Your task to perform on an android device: Search for Mexican restaurants on Maps Image 0: 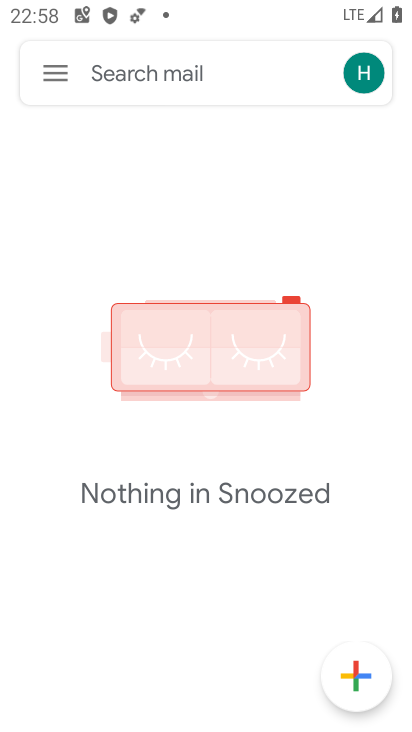
Step 0: press home button
Your task to perform on an android device: Search for Mexican restaurants on Maps Image 1: 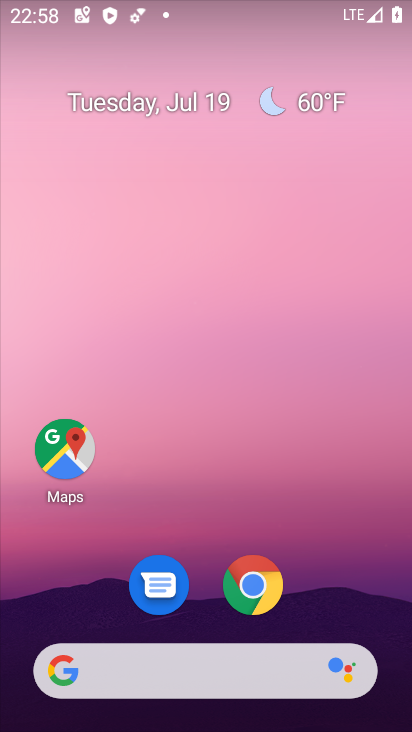
Step 1: click (64, 441)
Your task to perform on an android device: Search for Mexican restaurants on Maps Image 2: 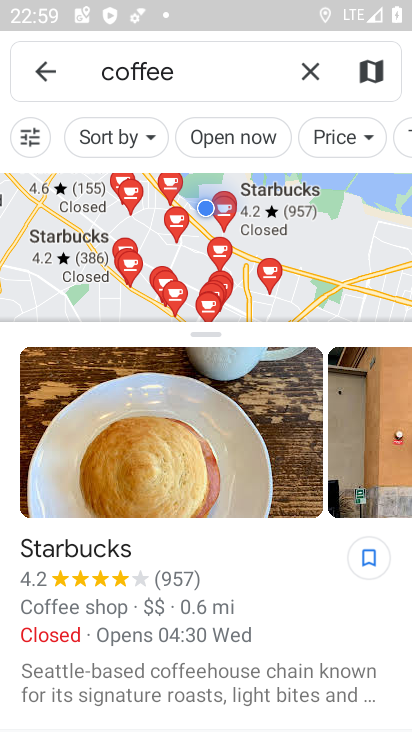
Step 2: click (307, 64)
Your task to perform on an android device: Search for Mexican restaurants on Maps Image 3: 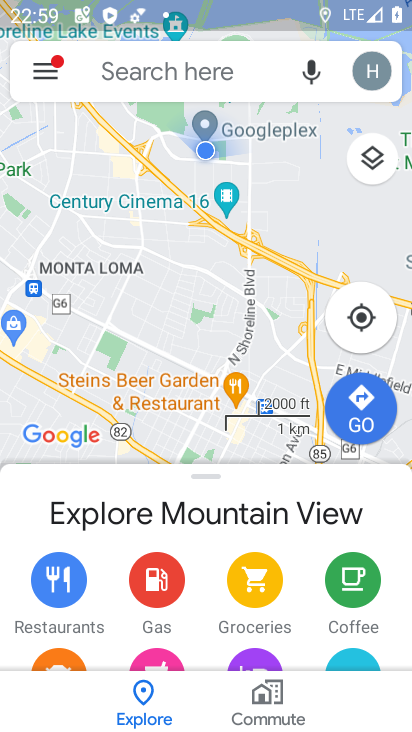
Step 3: click (268, 64)
Your task to perform on an android device: Search for Mexican restaurants on Maps Image 4: 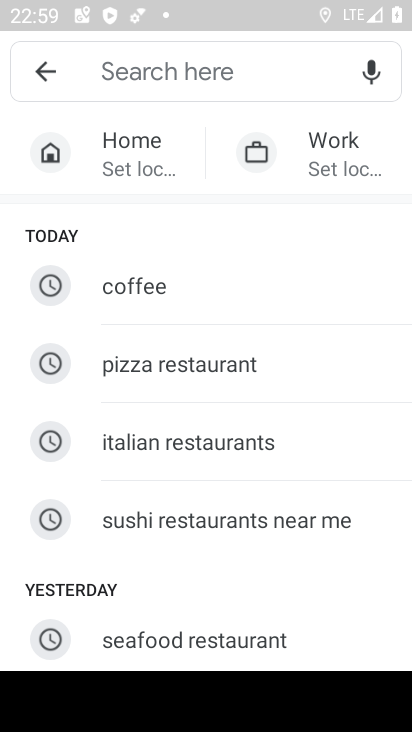
Step 4: drag from (212, 486) to (222, 230)
Your task to perform on an android device: Search for Mexican restaurants on Maps Image 5: 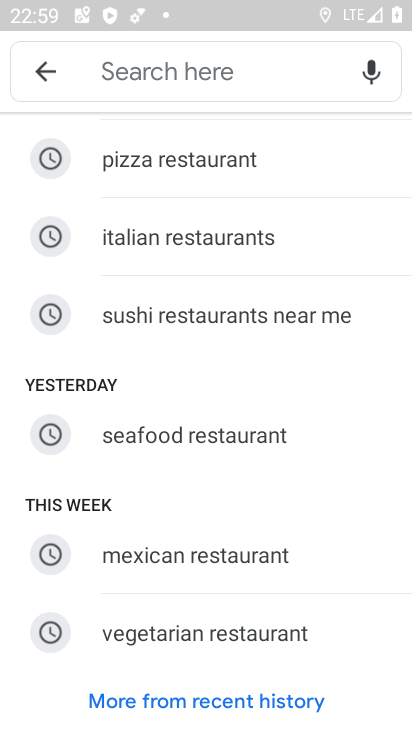
Step 5: click (205, 549)
Your task to perform on an android device: Search for Mexican restaurants on Maps Image 6: 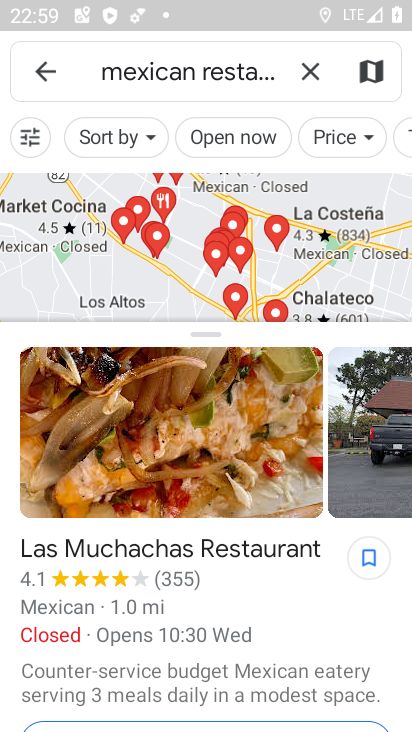
Step 6: task complete